Your task to perform on an android device: Show me popular games on the Play Store Image 0: 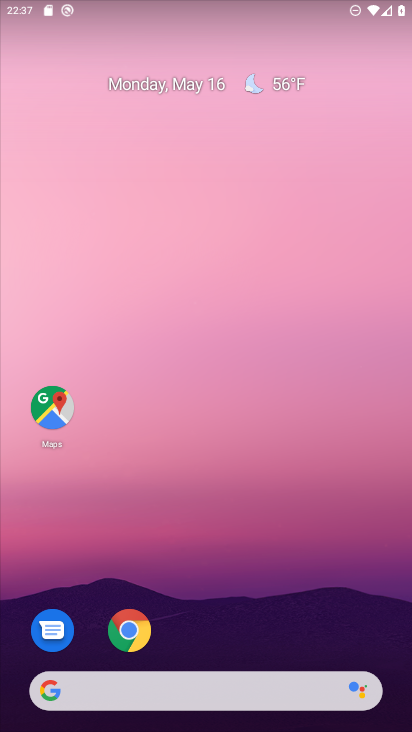
Step 0: drag from (212, 632) to (203, 0)
Your task to perform on an android device: Show me popular games on the Play Store Image 1: 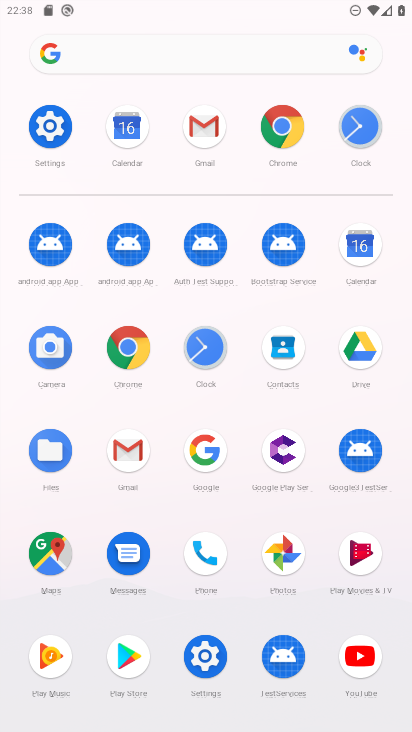
Step 1: click (132, 656)
Your task to perform on an android device: Show me popular games on the Play Store Image 2: 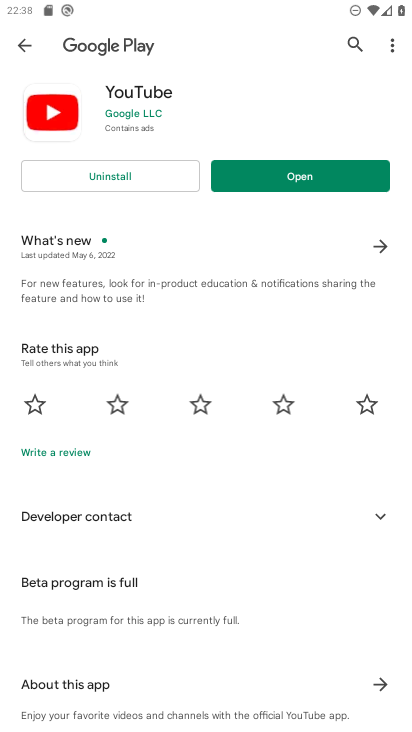
Step 2: click (18, 45)
Your task to perform on an android device: Show me popular games on the Play Store Image 3: 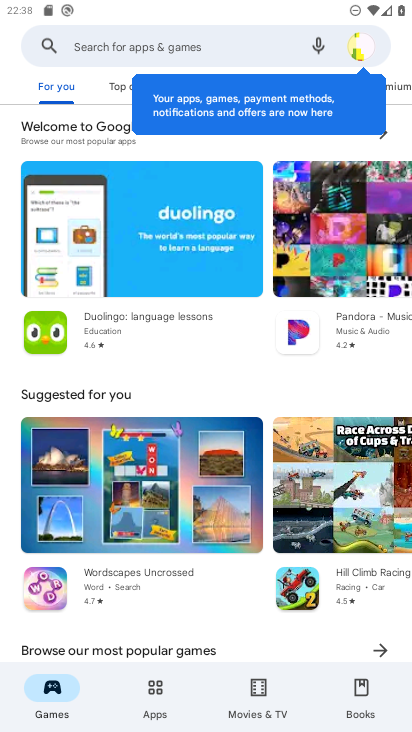
Step 3: drag from (106, 98) to (18, 95)
Your task to perform on an android device: Show me popular games on the Play Store Image 4: 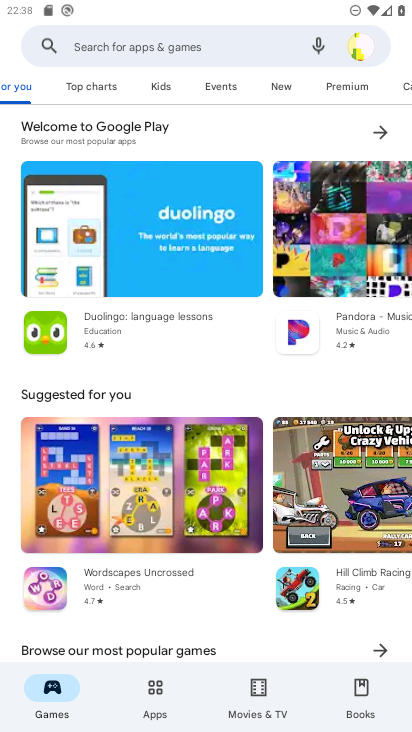
Step 4: click (410, 84)
Your task to perform on an android device: Show me popular games on the Play Store Image 5: 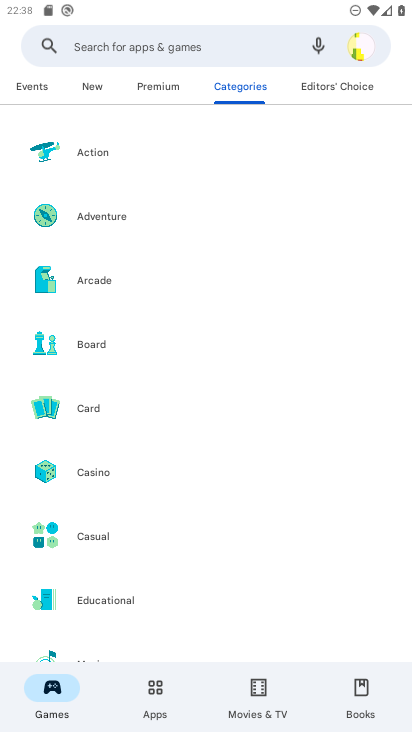
Step 5: drag from (139, 528) to (147, 254)
Your task to perform on an android device: Show me popular games on the Play Store Image 6: 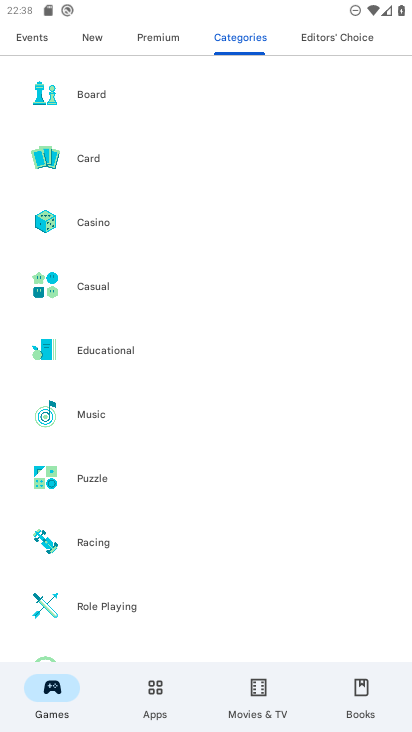
Step 6: drag from (145, 543) to (188, 82)
Your task to perform on an android device: Show me popular games on the Play Store Image 7: 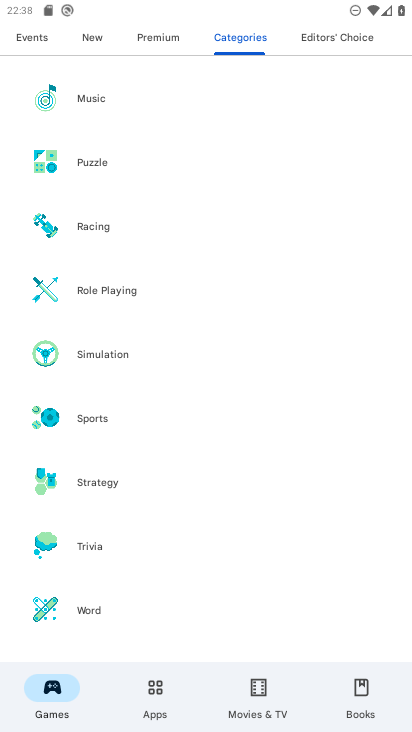
Step 7: drag from (144, 488) to (183, 94)
Your task to perform on an android device: Show me popular games on the Play Store Image 8: 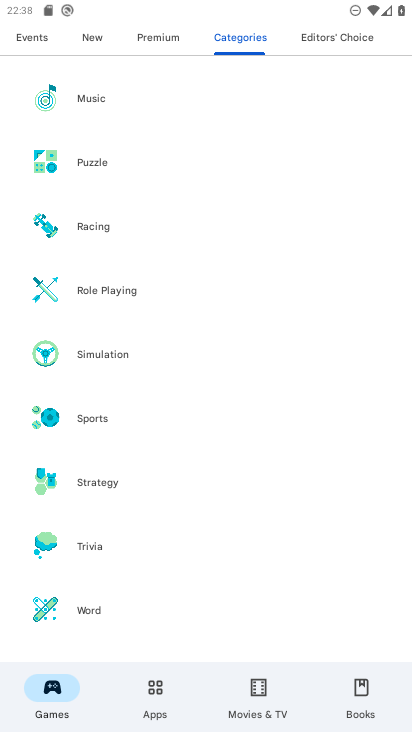
Step 8: drag from (116, 567) to (154, 316)
Your task to perform on an android device: Show me popular games on the Play Store Image 9: 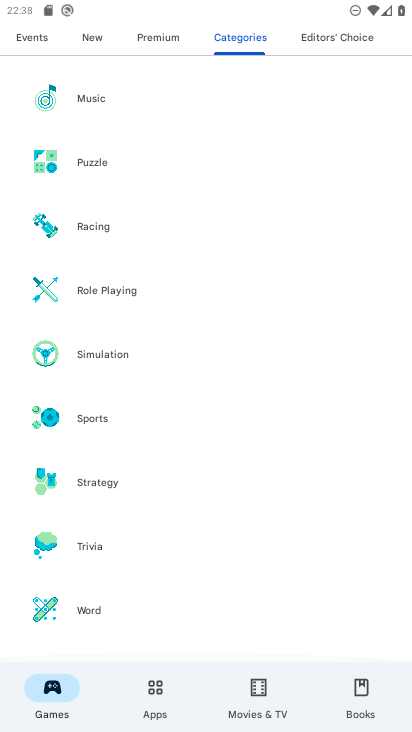
Step 9: drag from (160, 244) to (149, 644)
Your task to perform on an android device: Show me popular games on the Play Store Image 10: 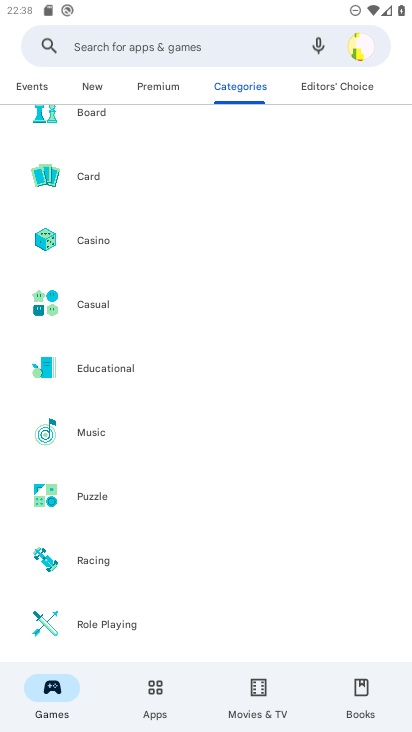
Step 10: drag from (219, 93) to (409, 101)
Your task to perform on an android device: Show me popular games on the Play Store Image 11: 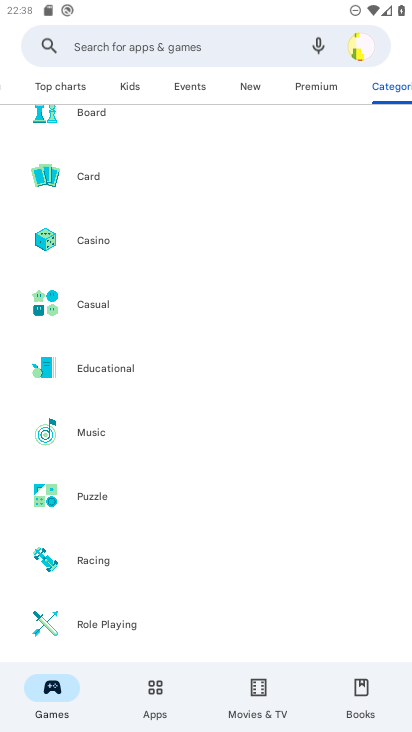
Step 11: click (58, 89)
Your task to perform on an android device: Show me popular games on the Play Store Image 12: 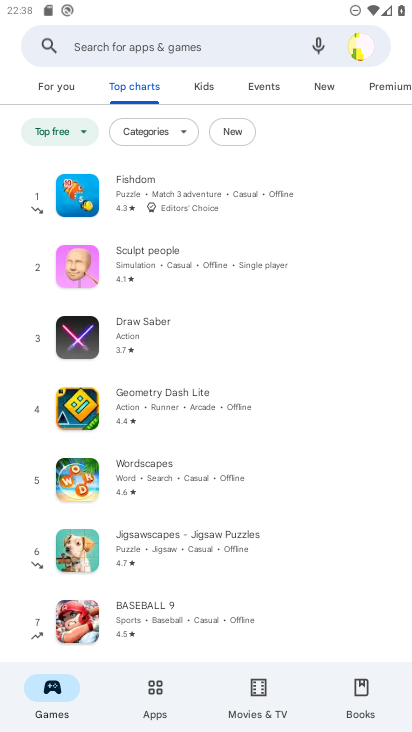
Step 12: task complete